Your task to perform on an android device: What's the weather going to be tomorrow? Image 0: 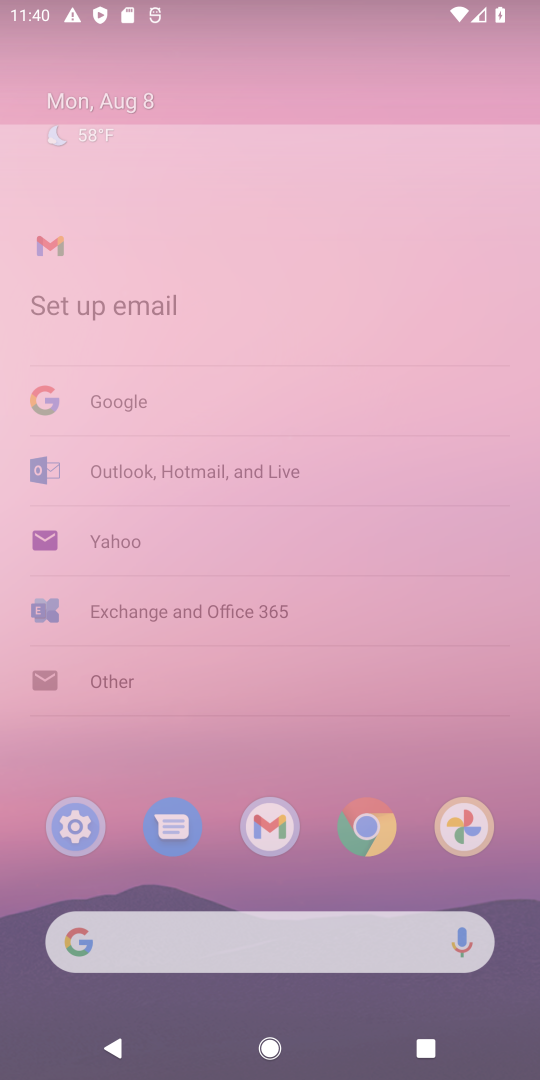
Step 0: press home button
Your task to perform on an android device: What's the weather going to be tomorrow? Image 1: 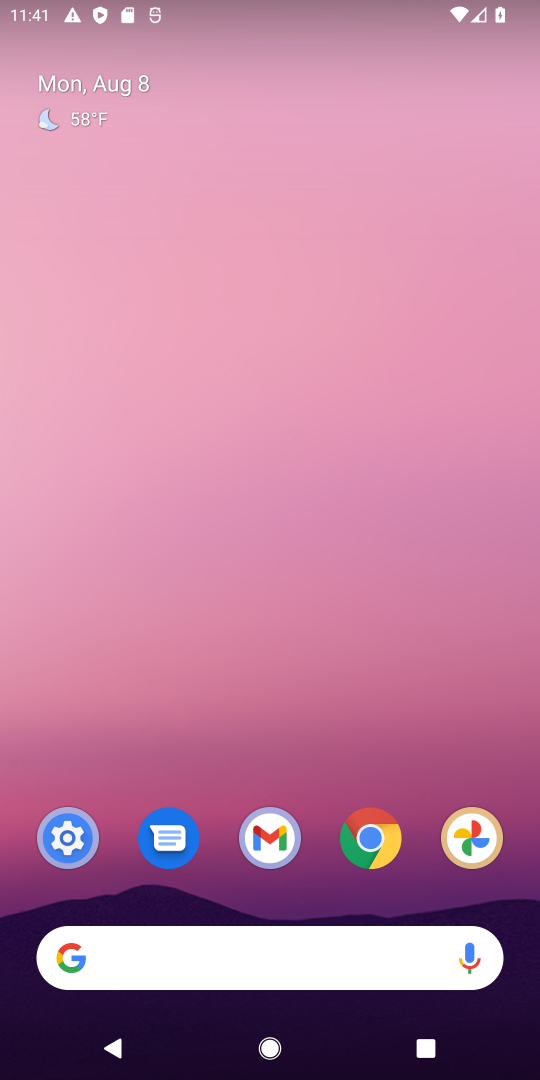
Step 1: click (73, 955)
Your task to perform on an android device: What's the weather going to be tomorrow? Image 2: 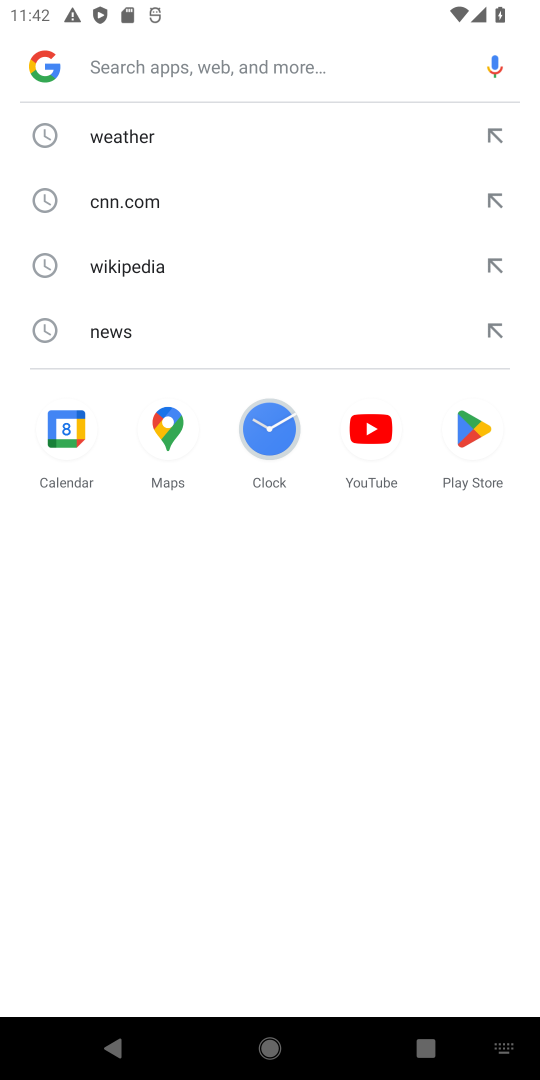
Step 2: type "weather going to be tomorrow?"
Your task to perform on an android device: What's the weather going to be tomorrow? Image 3: 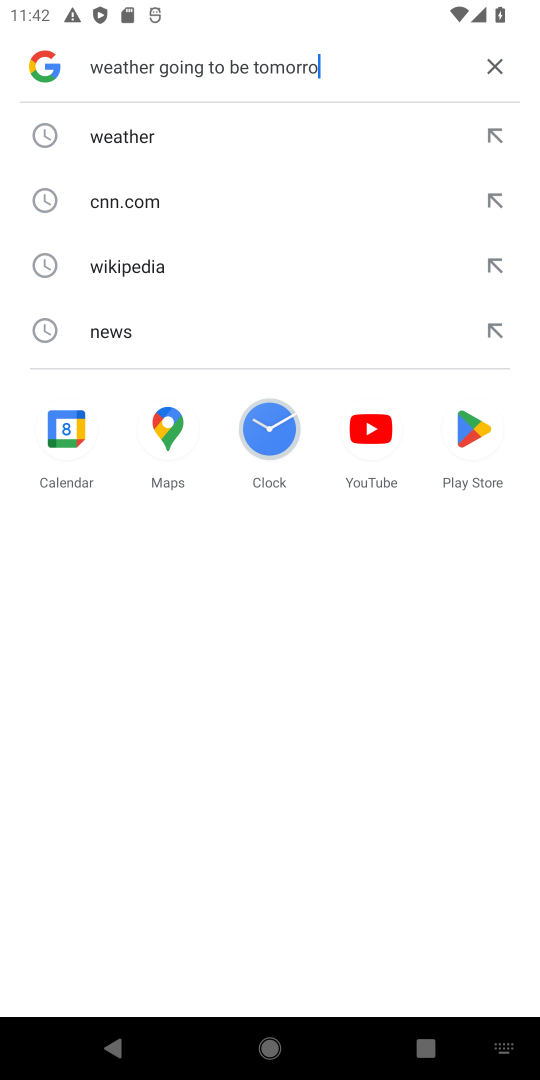
Step 3: press enter
Your task to perform on an android device: What's the weather going to be tomorrow? Image 4: 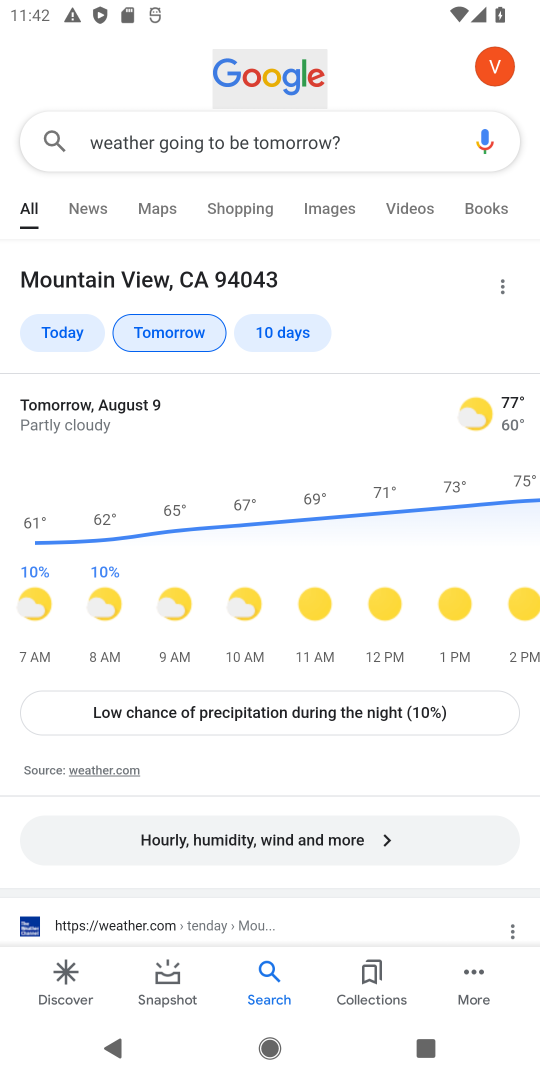
Step 4: task complete